Your task to perform on an android device: change the clock display to digital Image 0: 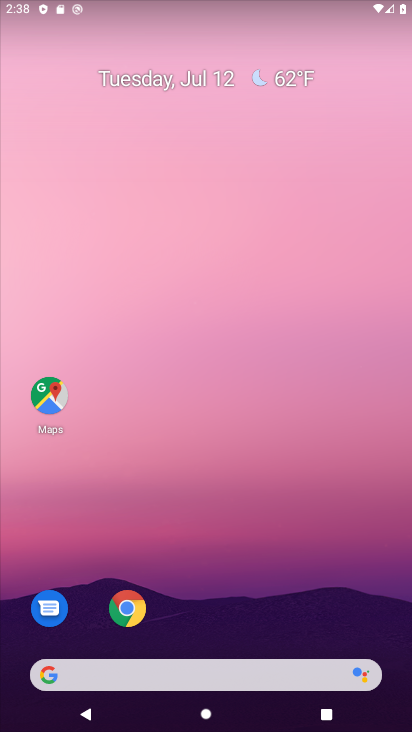
Step 0: press home button
Your task to perform on an android device: change the clock display to digital Image 1: 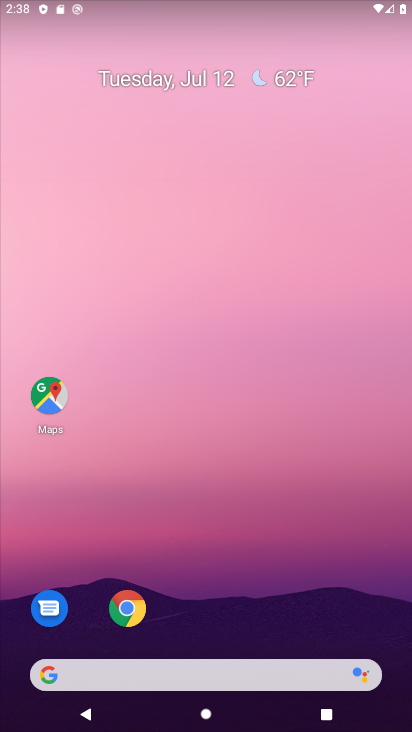
Step 1: drag from (204, 677) to (344, 123)
Your task to perform on an android device: change the clock display to digital Image 2: 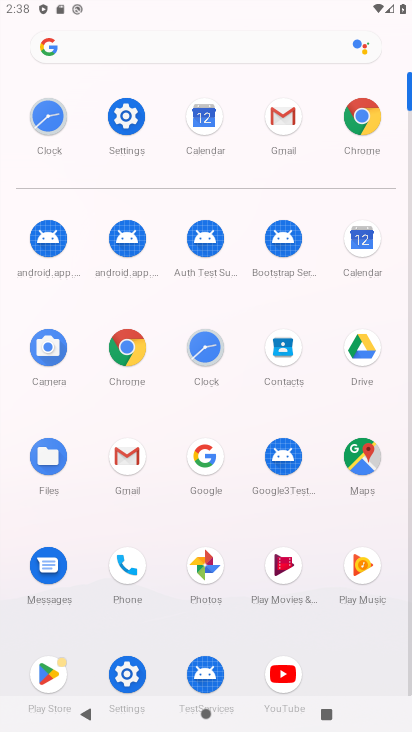
Step 2: click (200, 350)
Your task to perform on an android device: change the clock display to digital Image 3: 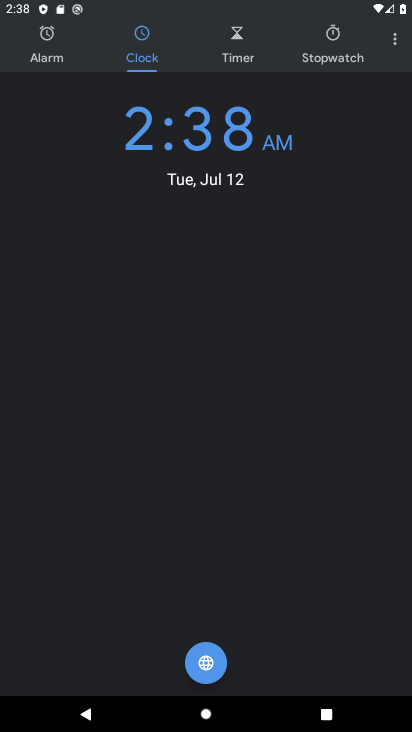
Step 3: click (393, 33)
Your task to perform on an android device: change the clock display to digital Image 4: 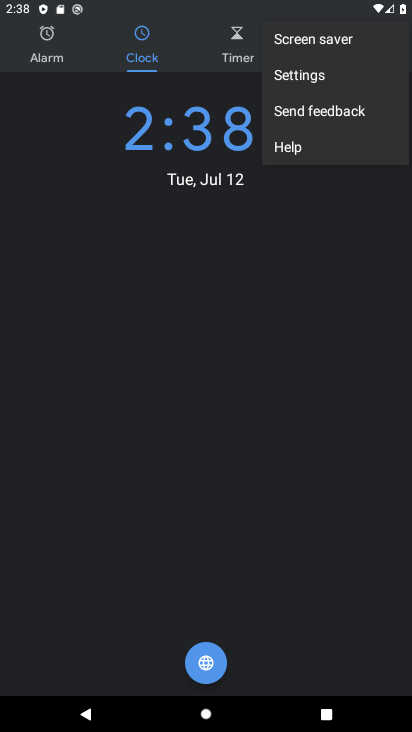
Step 4: click (305, 74)
Your task to perform on an android device: change the clock display to digital Image 5: 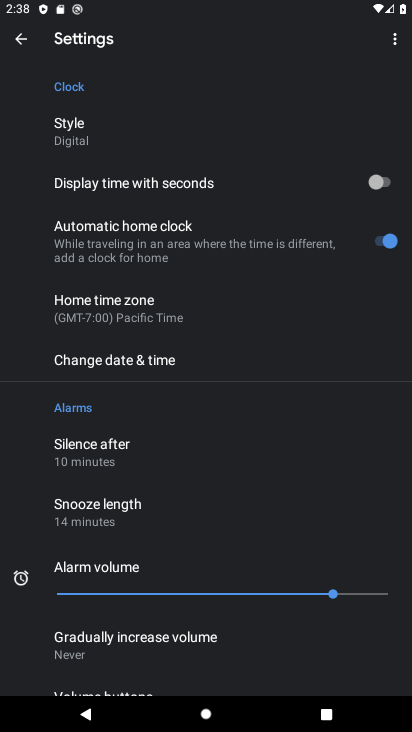
Step 5: task complete